Your task to perform on an android device: Clear all items from cart on walmart.com. Add bose quietcomfort 35 to the cart on walmart.com Image 0: 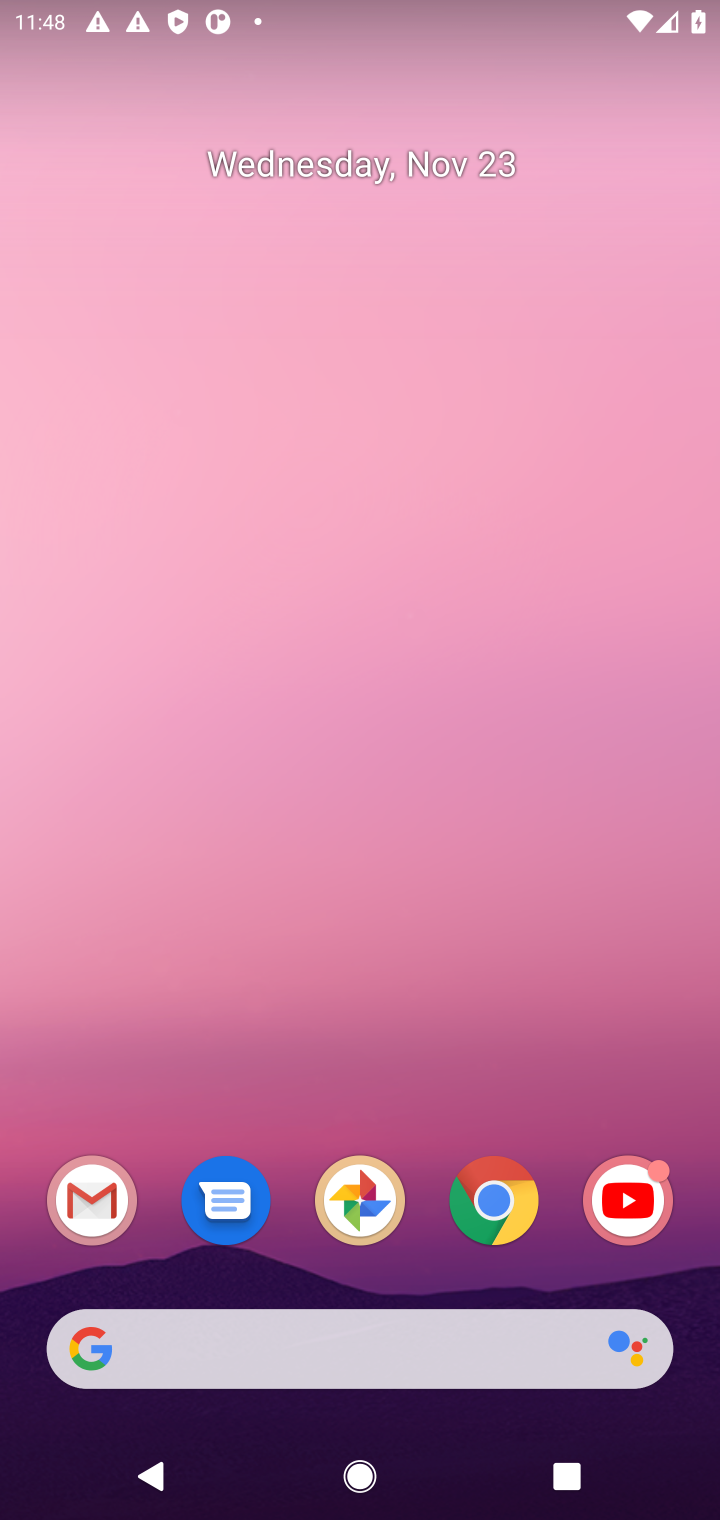
Step 0: click (431, 1374)
Your task to perform on an android device: Clear all items from cart on walmart.com. Add bose quietcomfort 35 to the cart on walmart.com Image 1: 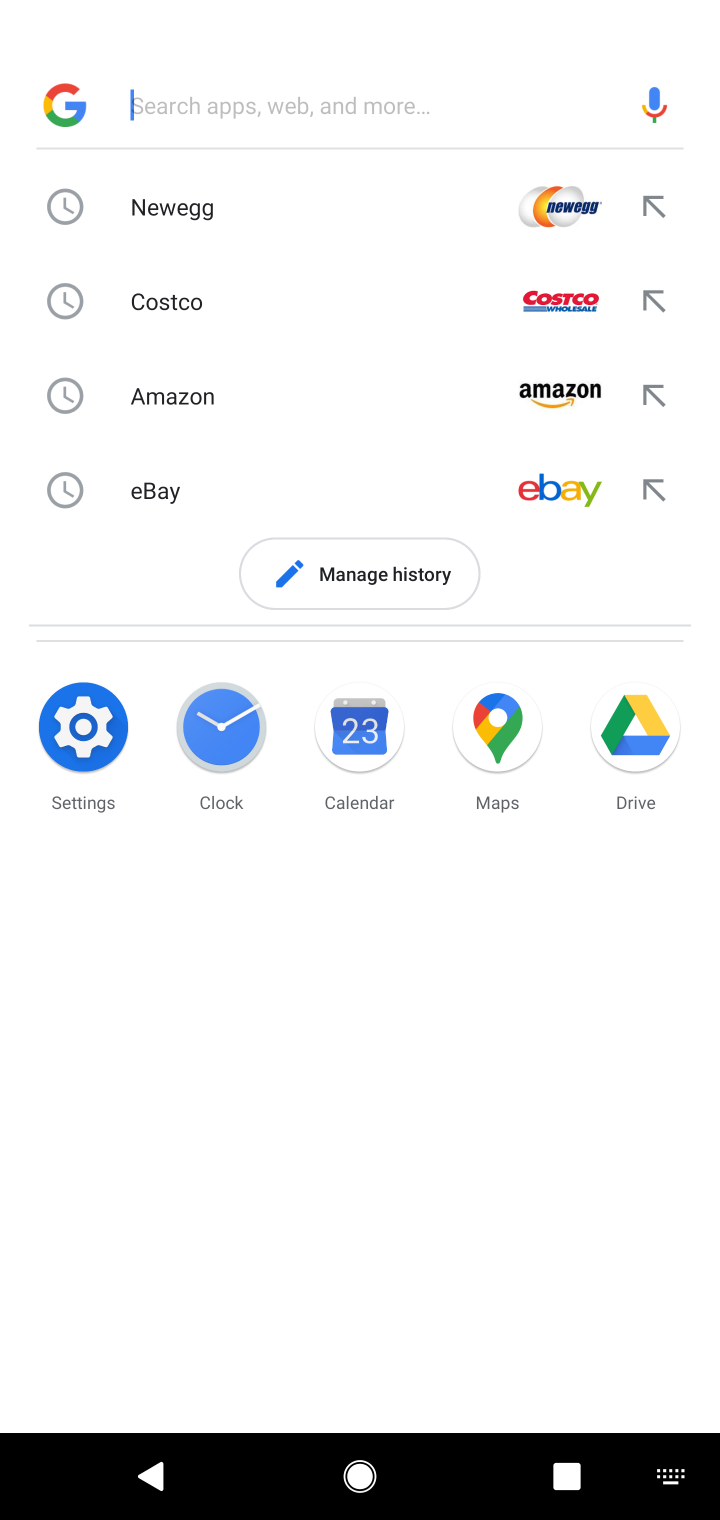
Step 1: task complete